Your task to perform on an android device: toggle show notifications on the lock screen Image 0: 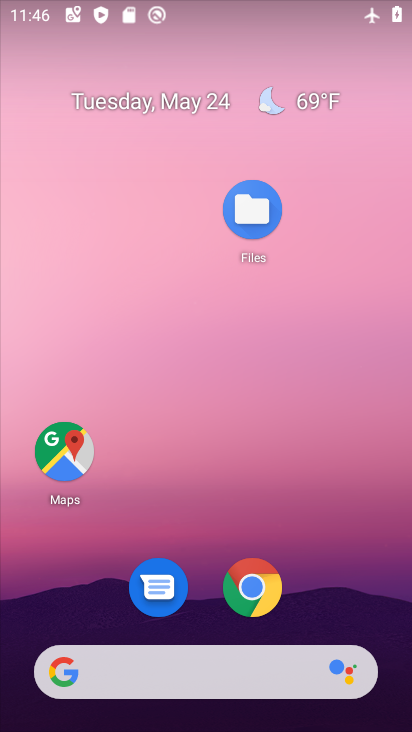
Step 0: drag from (344, 614) to (146, 240)
Your task to perform on an android device: toggle show notifications on the lock screen Image 1: 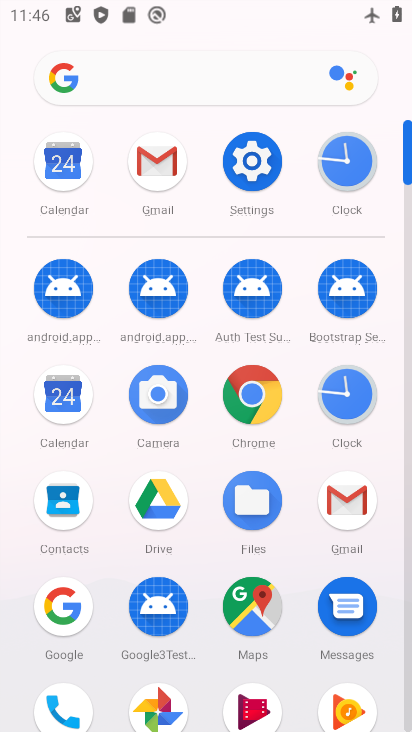
Step 1: click (254, 176)
Your task to perform on an android device: toggle show notifications on the lock screen Image 2: 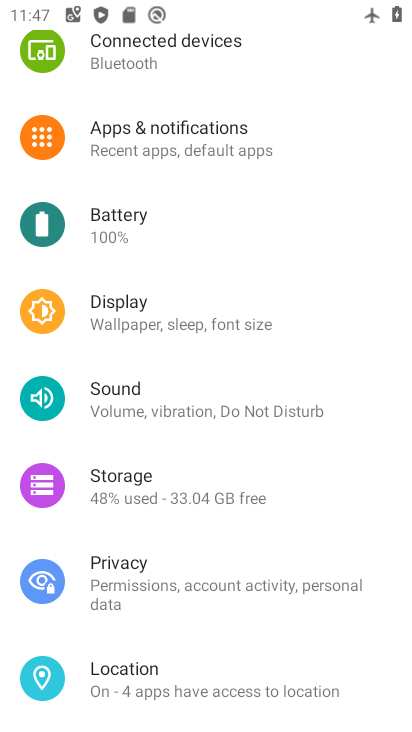
Step 2: click (202, 143)
Your task to perform on an android device: toggle show notifications on the lock screen Image 3: 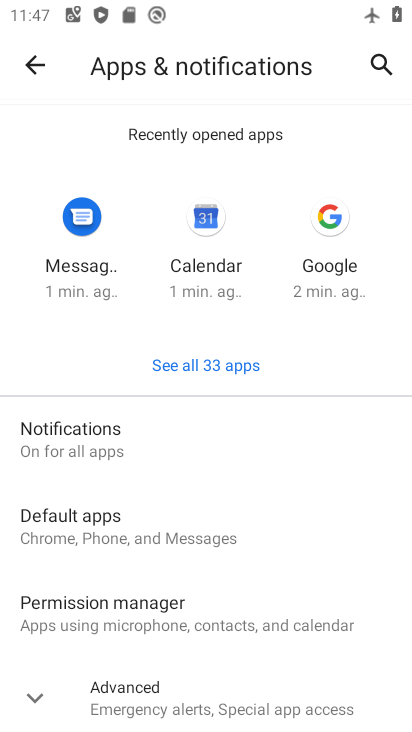
Step 3: click (92, 448)
Your task to perform on an android device: toggle show notifications on the lock screen Image 4: 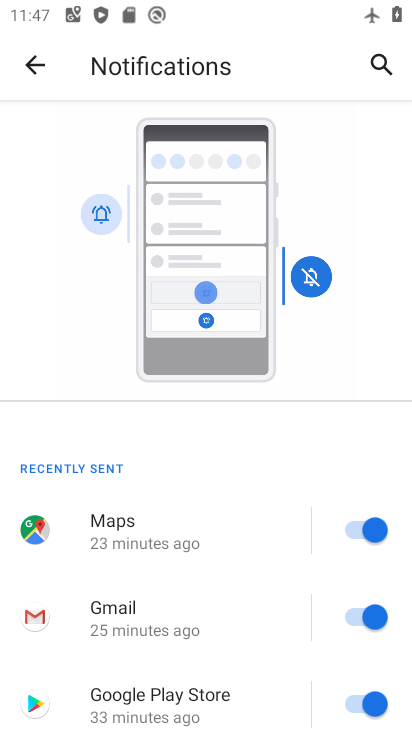
Step 4: drag from (201, 687) to (199, 327)
Your task to perform on an android device: toggle show notifications on the lock screen Image 5: 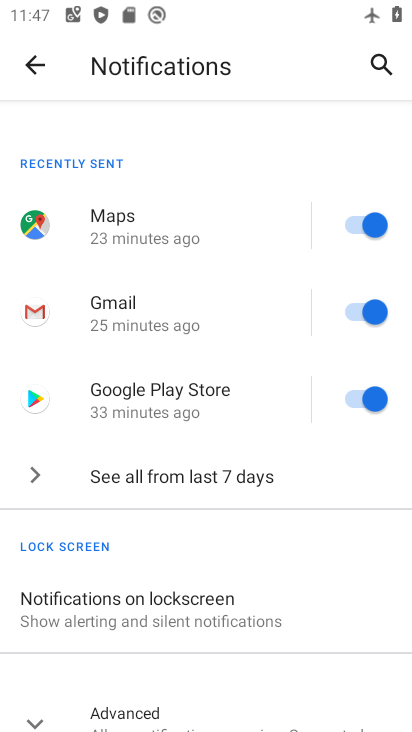
Step 5: click (221, 607)
Your task to perform on an android device: toggle show notifications on the lock screen Image 6: 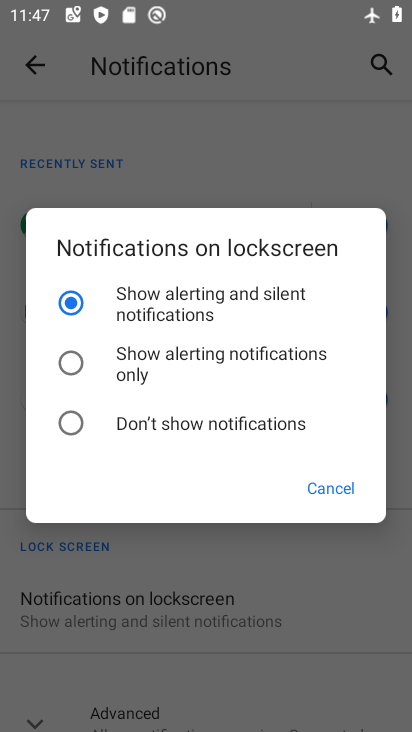
Step 6: click (248, 357)
Your task to perform on an android device: toggle show notifications on the lock screen Image 7: 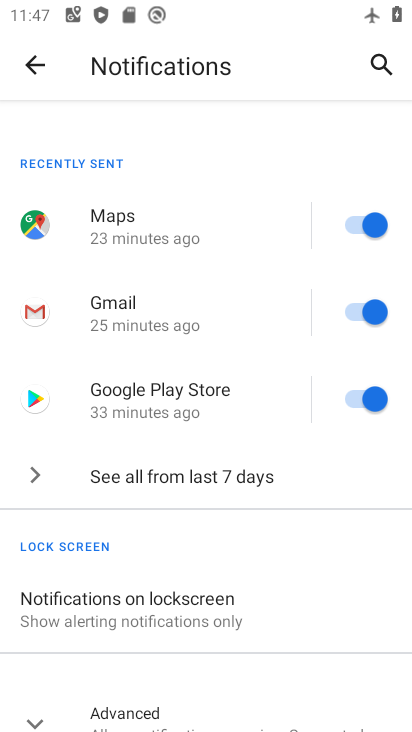
Step 7: task complete